Your task to perform on an android device: change alarm snooze length Image 0: 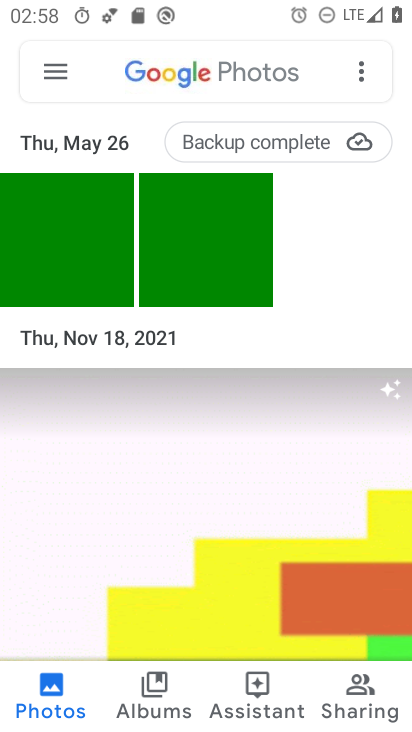
Step 0: press home button
Your task to perform on an android device: change alarm snooze length Image 1: 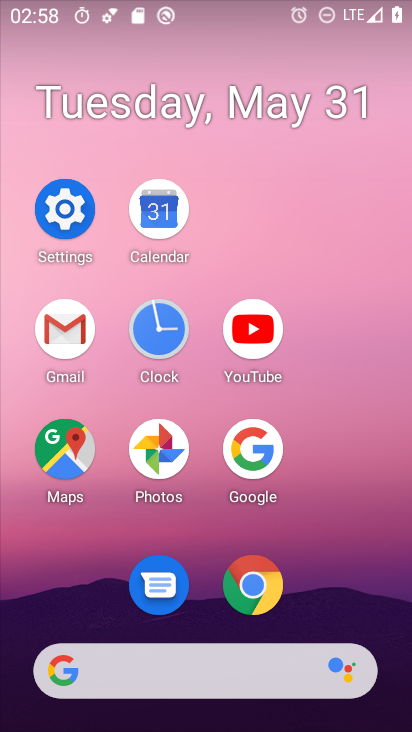
Step 1: click (159, 339)
Your task to perform on an android device: change alarm snooze length Image 2: 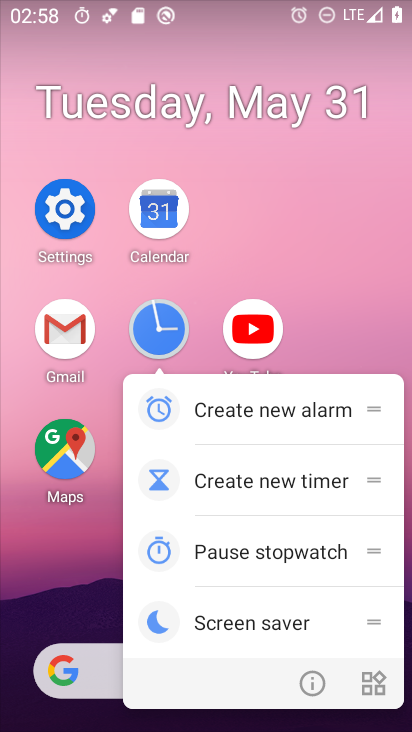
Step 2: click (157, 318)
Your task to perform on an android device: change alarm snooze length Image 3: 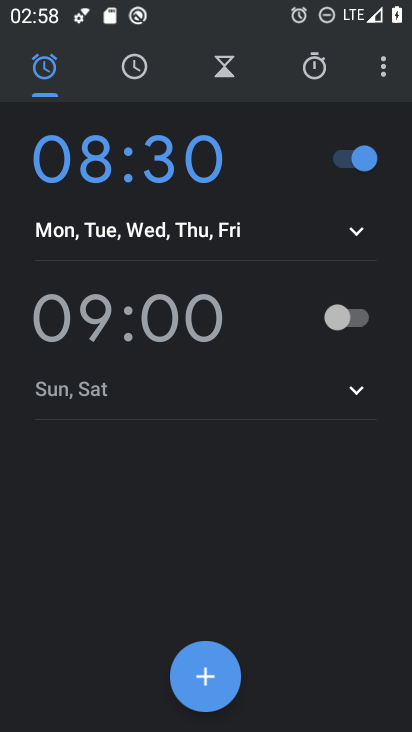
Step 3: click (374, 63)
Your task to perform on an android device: change alarm snooze length Image 4: 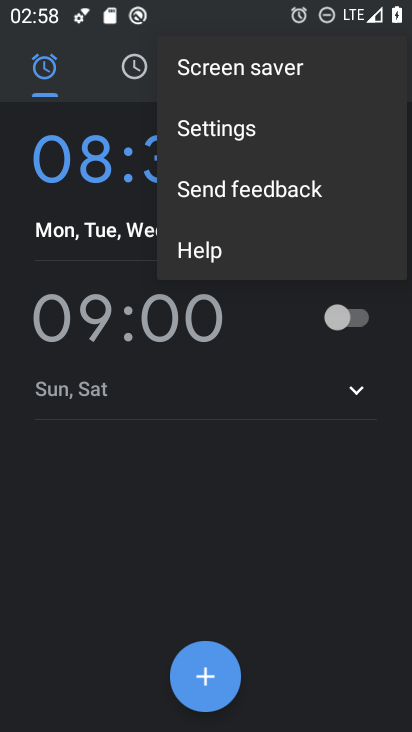
Step 4: click (242, 108)
Your task to perform on an android device: change alarm snooze length Image 5: 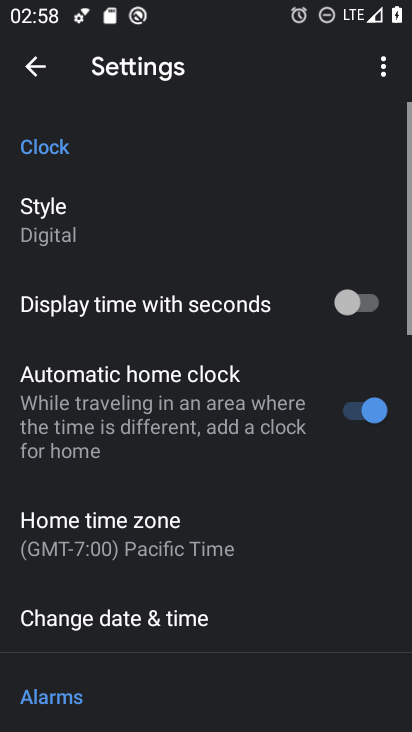
Step 5: drag from (134, 567) to (196, 246)
Your task to perform on an android device: change alarm snooze length Image 6: 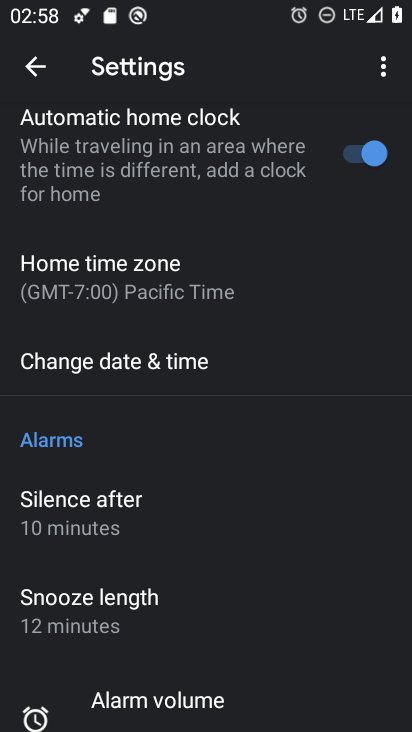
Step 6: click (179, 593)
Your task to perform on an android device: change alarm snooze length Image 7: 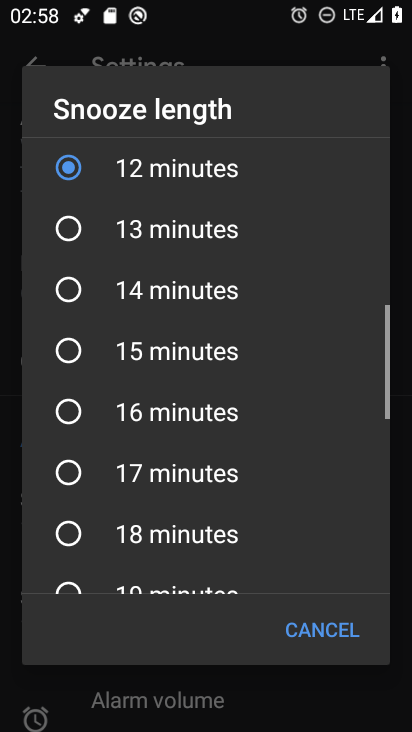
Step 7: click (178, 481)
Your task to perform on an android device: change alarm snooze length Image 8: 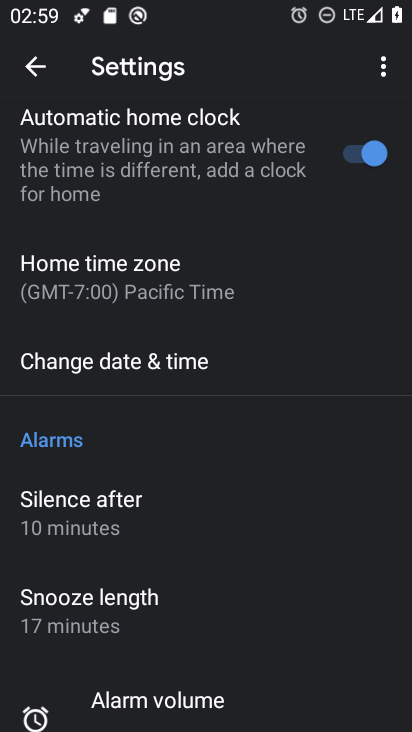
Step 8: task complete